Your task to perform on an android device: find which apps use the phone's location Image 0: 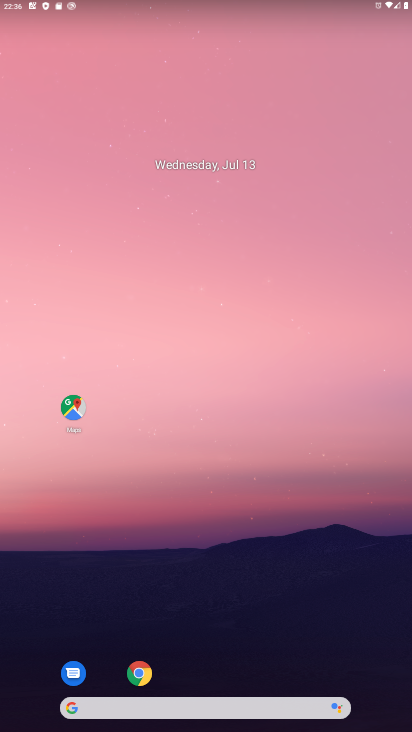
Step 0: drag from (227, 587) to (183, 340)
Your task to perform on an android device: find which apps use the phone's location Image 1: 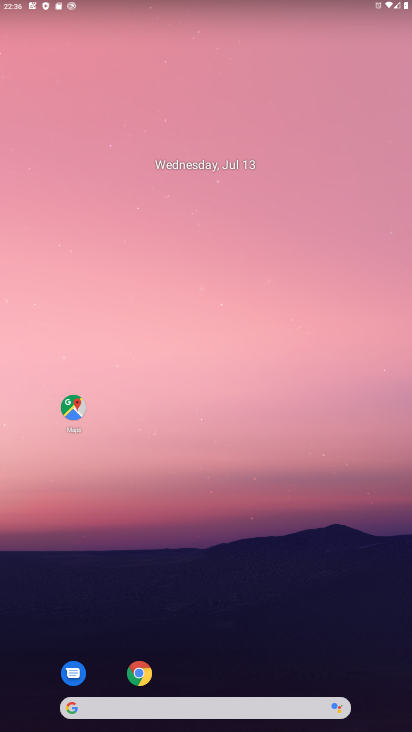
Step 1: drag from (244, 698) to (258, 192)
Your task to perform on an android device: find which apps use the phone's location Image 2: 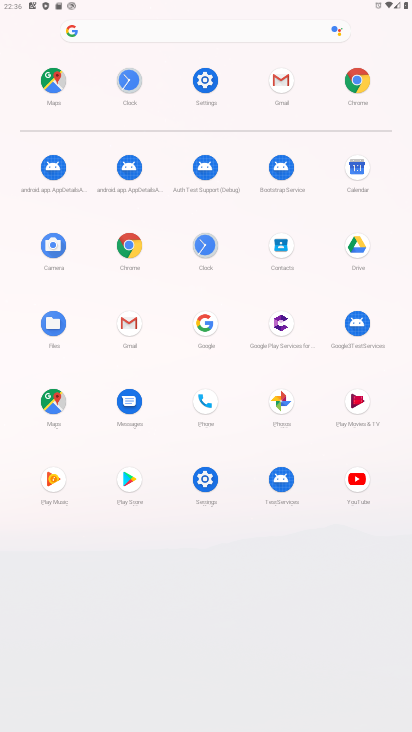
Step 2: click (207, 78)
Your task to perform on an android device: find which apps use the phone's location Image 3: 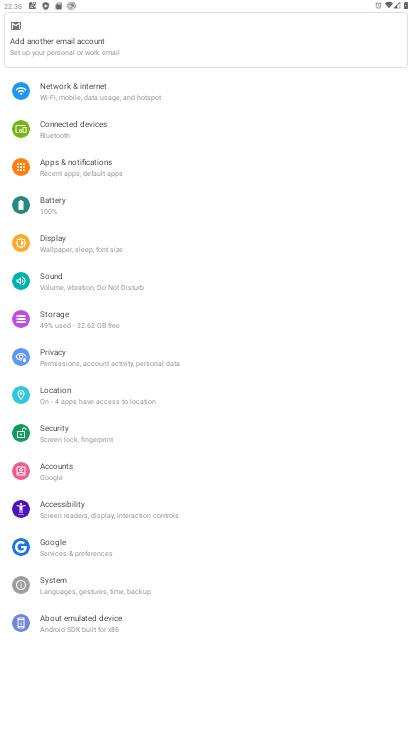
Step 3: click (77, 394)
Your task to perform on an android device: find which apps use the phone's location Image 4: 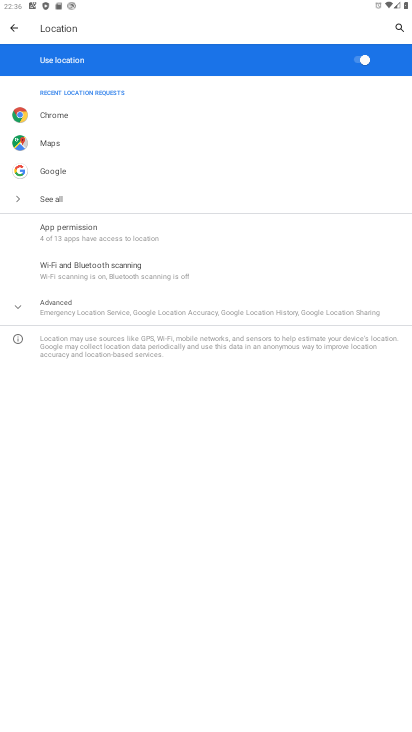
Step 4: click (55, 233)
Your task to perform on an android device: find which apps use the phone's location Image 5: 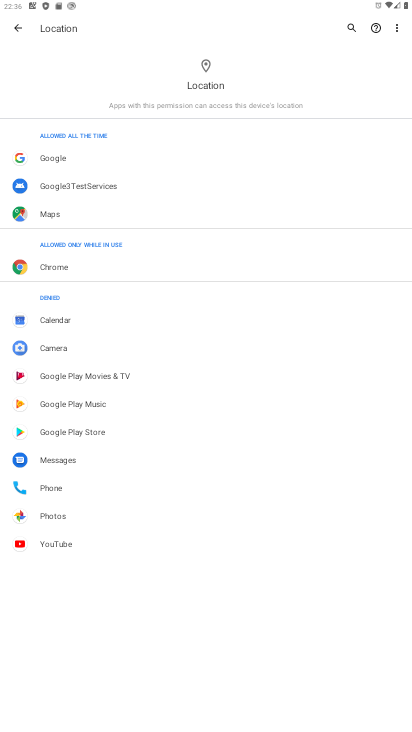
Step 5: task complete